Your task to perform on an android device: toggle translation in the chrome app Image 0: 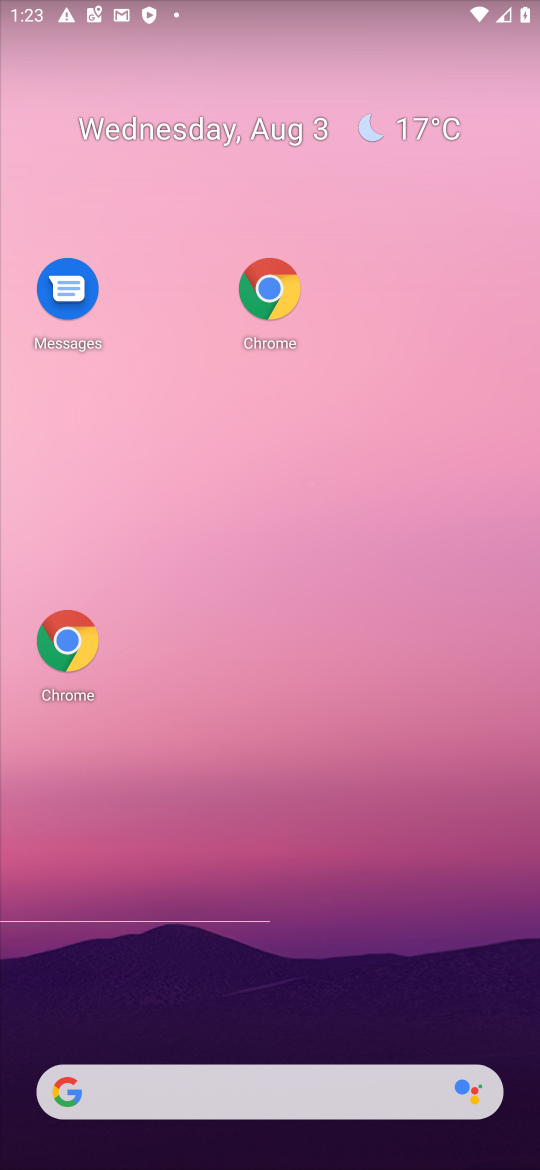
Step 0: click (261, 281)
Your task to perform on an android device: toggle translation in the chrome app Image 1: 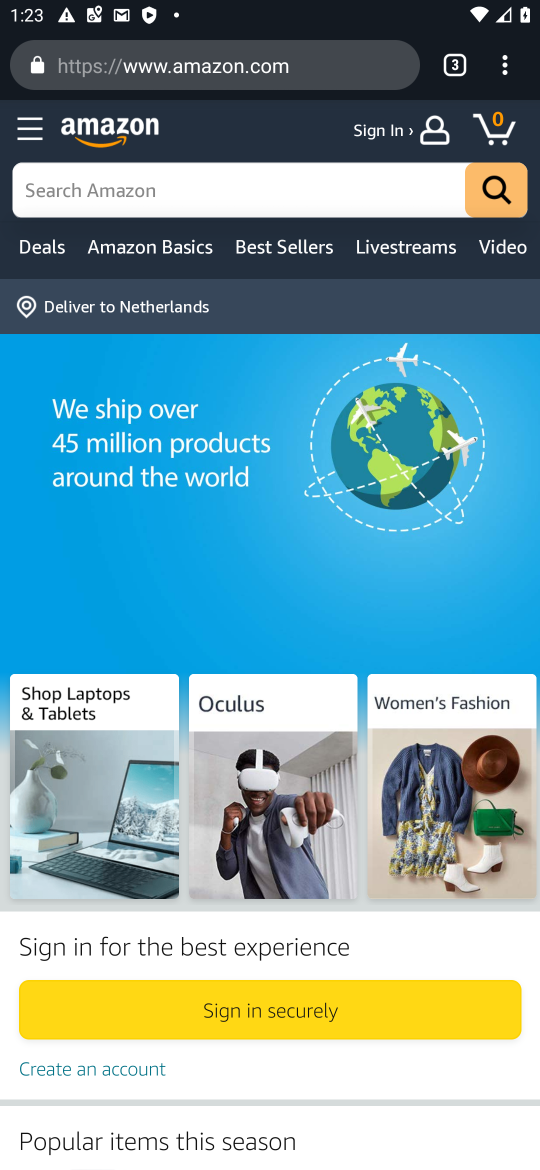
Step 1: click (503, 72)
Your task to perform on an android device: toggle translation in the chrome app Image 2: 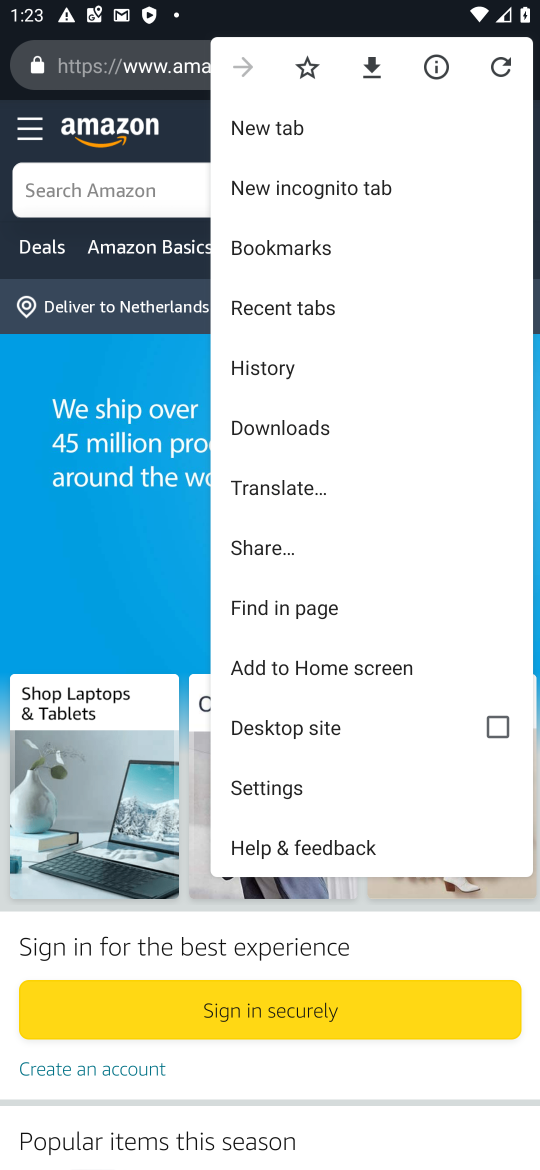
Step 2: click (312, 779)
Your task to perform on an android device: toggle translation in the chrome app Image 3: 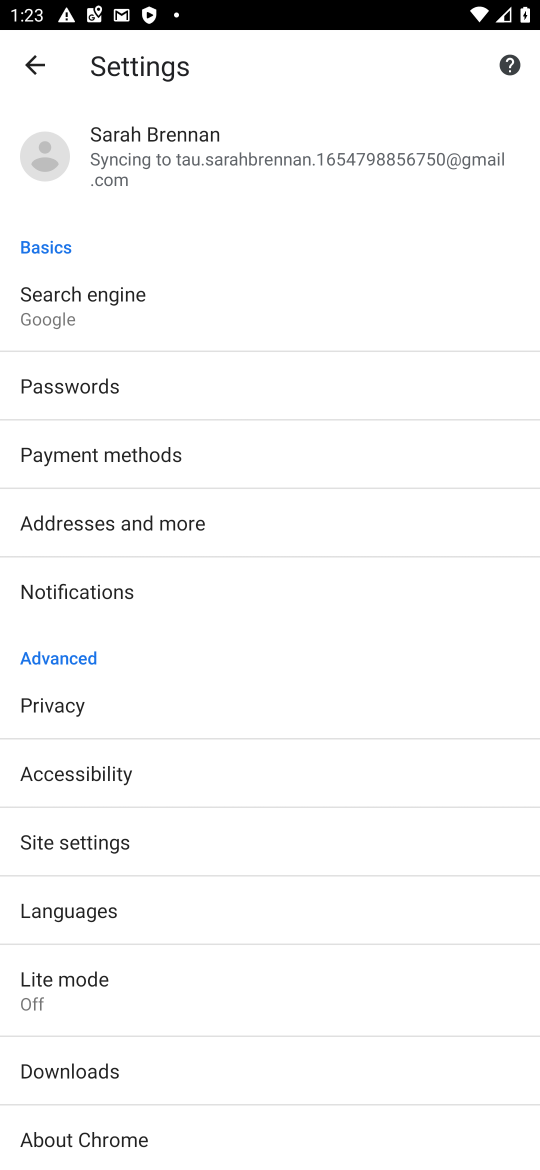
Step 3: click (301, 901)
Your task to perform on an android device: toggle translation in the chrome app Image 4: 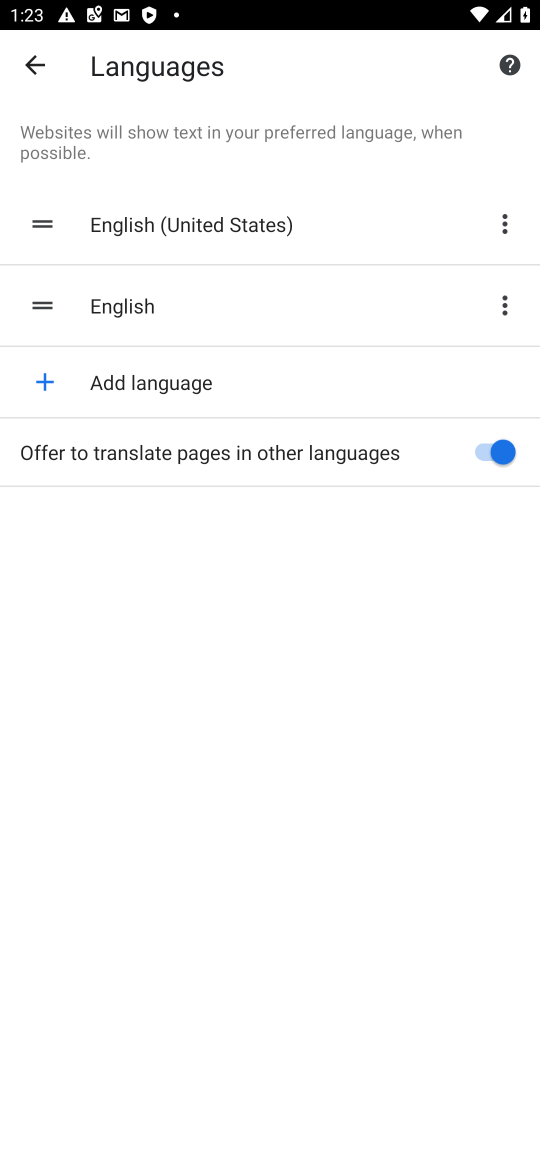
Step 4: click (513, 456)
Your task to perform on an android device: toggle translation in the chrome app Image 5: 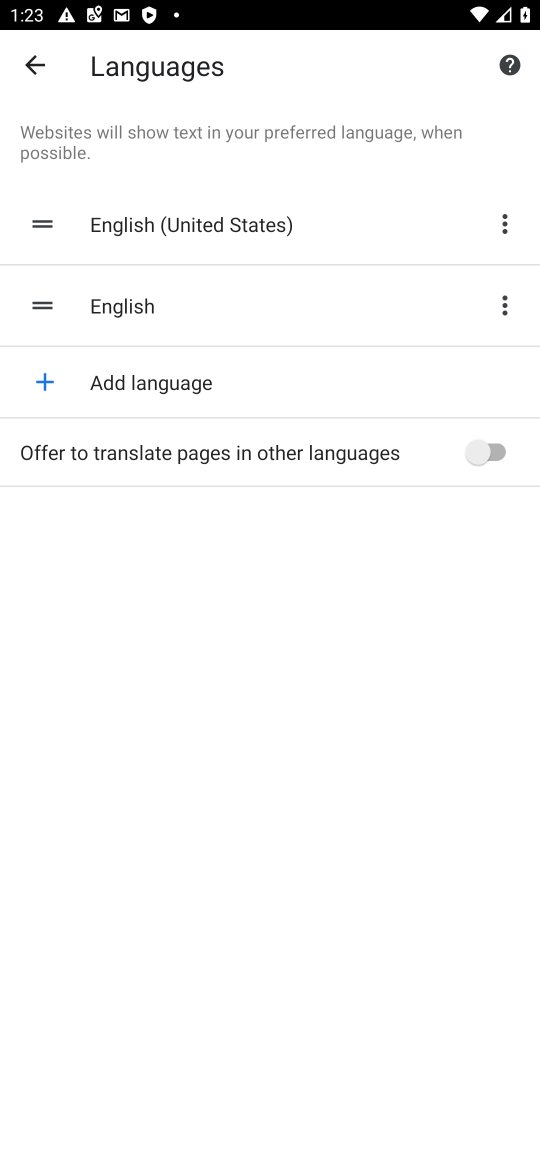
Step 5: task complete